Your task to perform on an android device: turn pop-ups on in chrome Image 0: 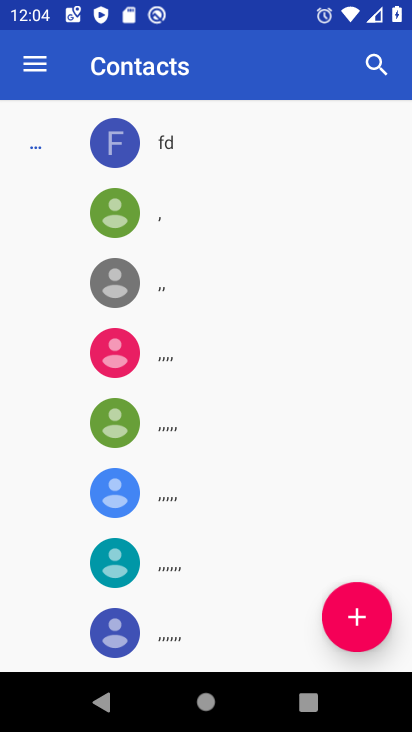
Step 0: press home button
Your task to perform on an android device: turn pop-ups on in chrome Image 1: 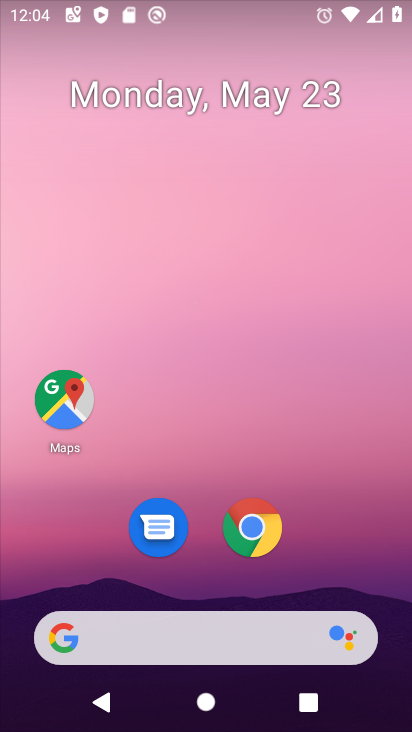
Step 1: click (274, 537)
Your task to perform on an android device: turn pop-ups on in chrome Image 2: 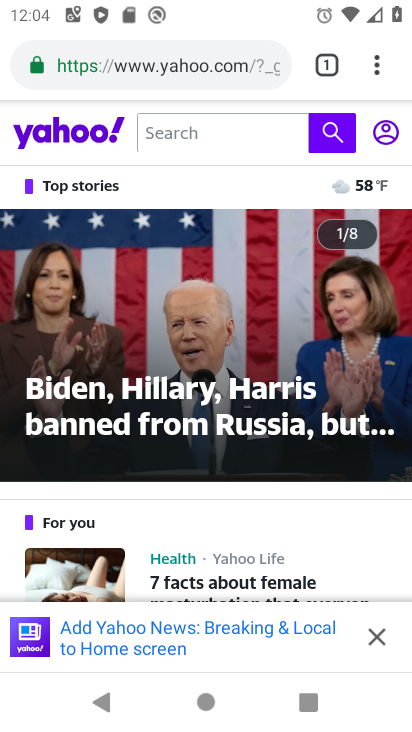
Step 2: click (375, 63)
Your task to perform on an android device: turn pop-ups on in chrome Image 3: 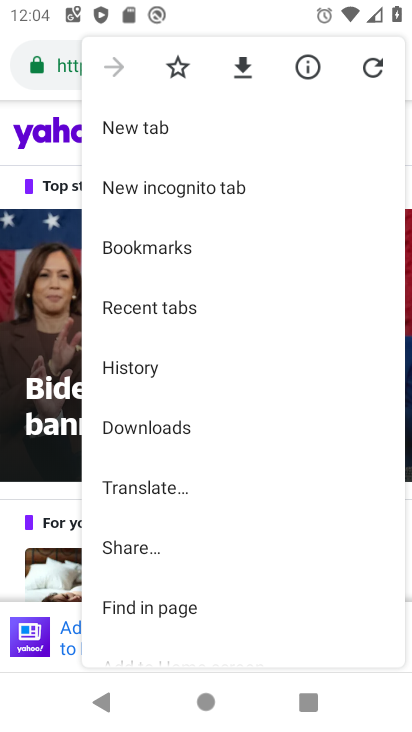
Step 3: drag from (209, 605) to (186, 324)
Your task to perform on an android device: turn pop-ups on in chrome Image 4: 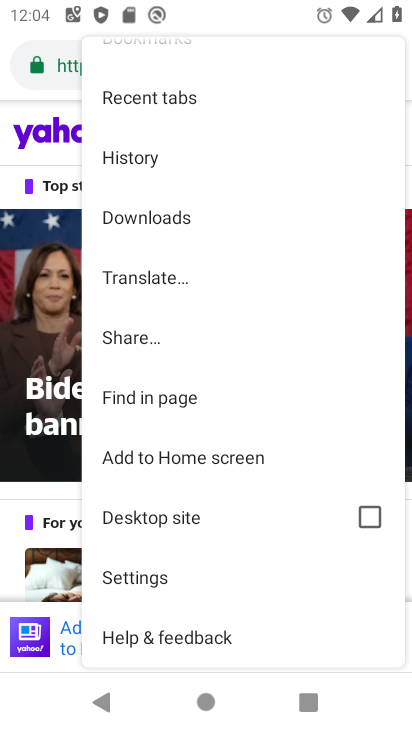
Step 4: click (204, 590)
Your task to perform on an android device: turn pop-ups on in chrome Image 5: 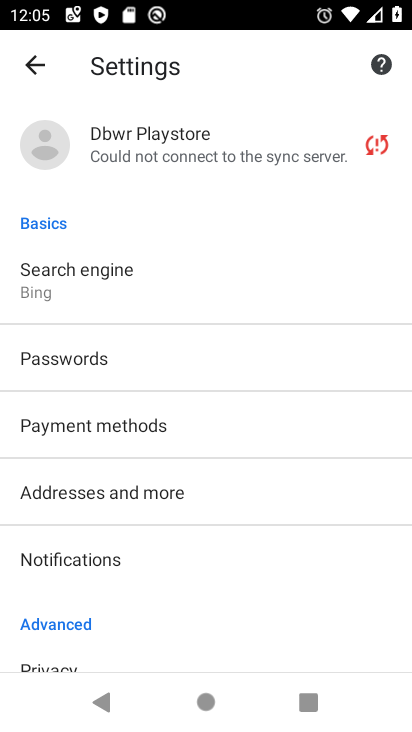
Step 5: click (73, 272)
Your task to perform on an android device: turn pop-ups on in chrome Image 6: 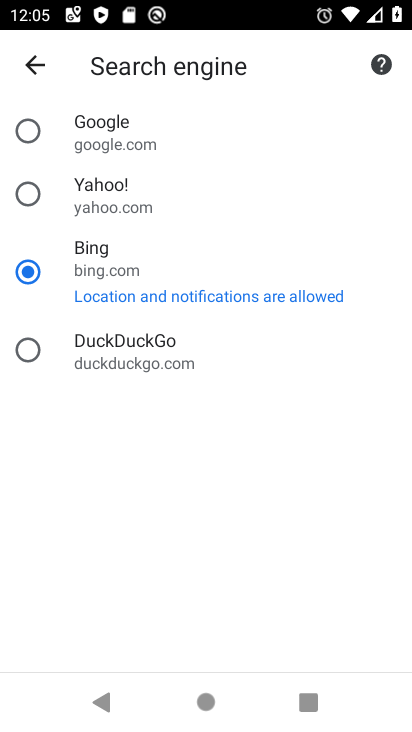
Step 6: click (110, 363)
Your task to perform on an android device: turn pop-ups on in chrome Image 7: 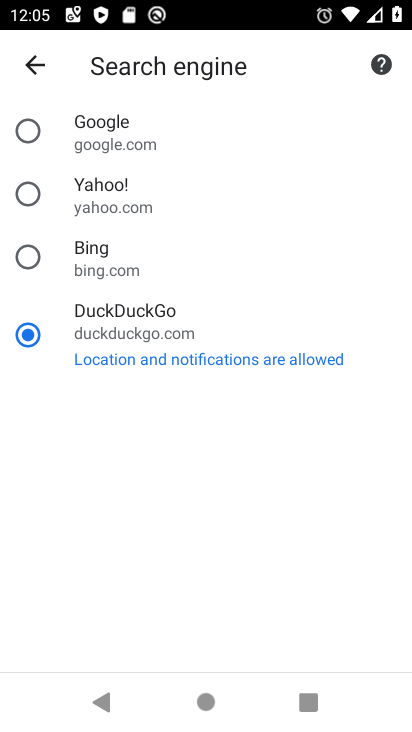
Step 7: task complete